Your task to perform on an android device: toggle javascript in the chrome app Image 0: 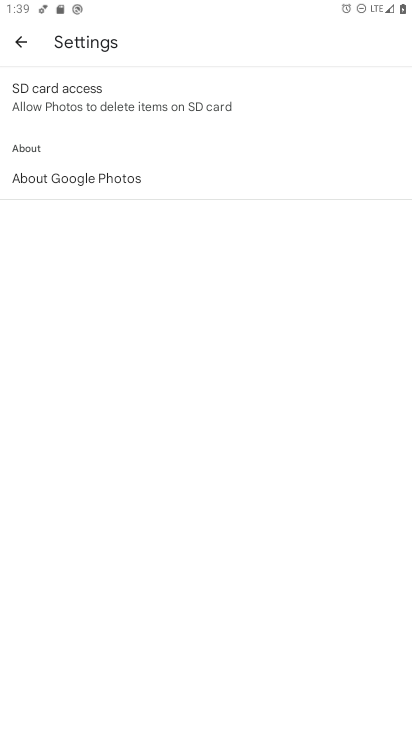
Step 0: press home button
Your task to perform on an android device: toggle javascript in the chrome app Image 1: 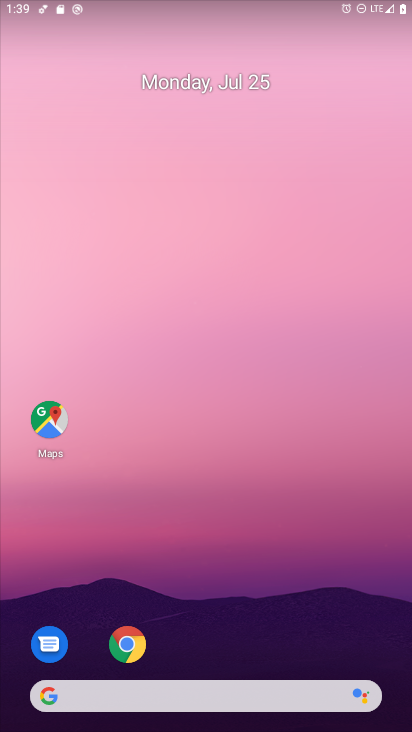
Step 1: click (124, 633)
Your task to perform on an android device: toggle javascript in the chrome app Image 2: 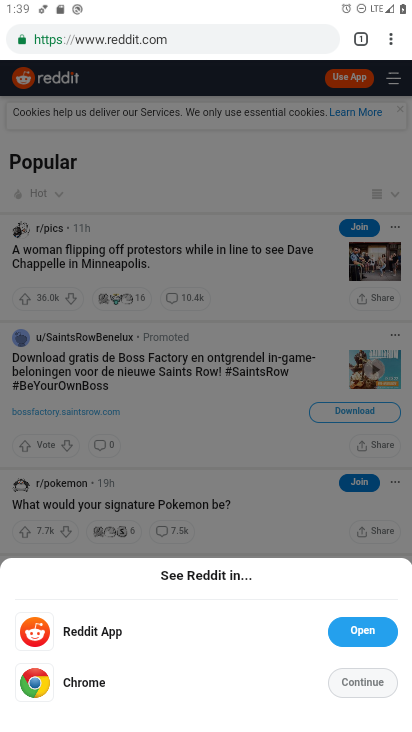
Step 2: click (386, 31)
Your task to perform on an android device: toggle javascript in the chrome app Image 3: 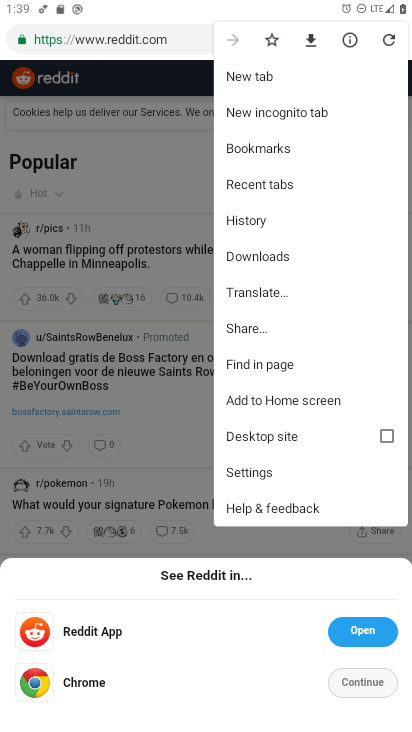
Step 3: click (273, 468)
Your task to perform on an android device: toggle javascript in the chrome app Image 4: 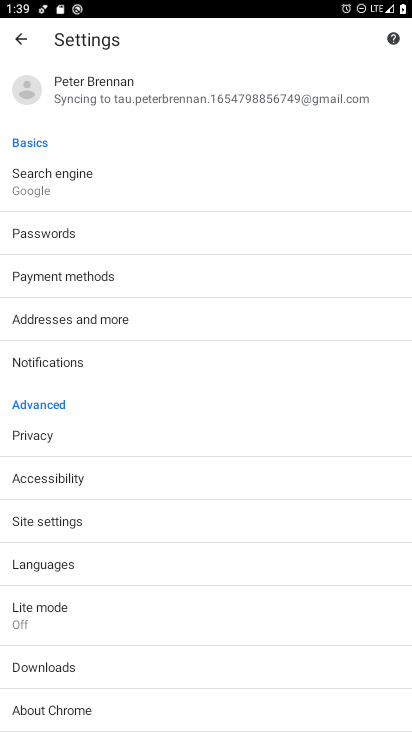
Step 4: click (50, 519)
Your task to perform on an android device: toggle javascript in the chrome app Image 5: 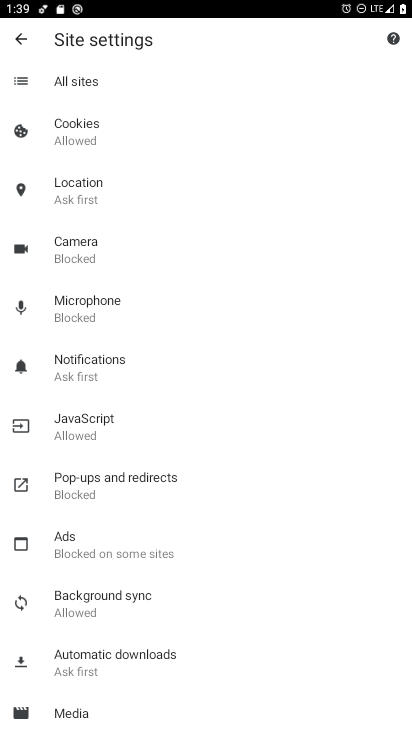
Step 5: click (73, 437)
Your task to perform on an android device: toggle javascript in the chrome app Image 6: 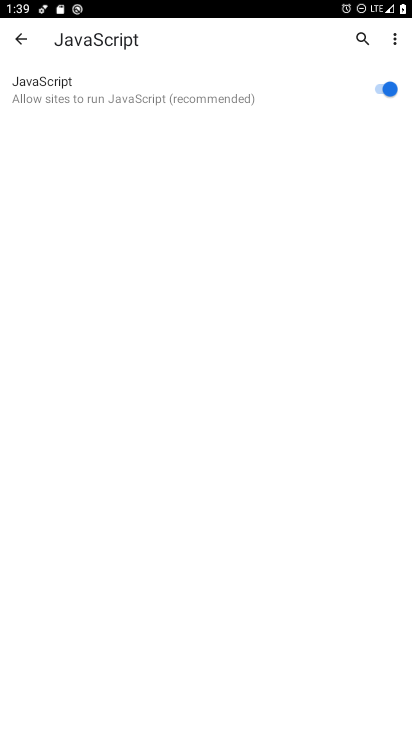
Step 6: click (384, 80)
Your task to perform on an android device: toggle javascript in the chrome app Image 7: 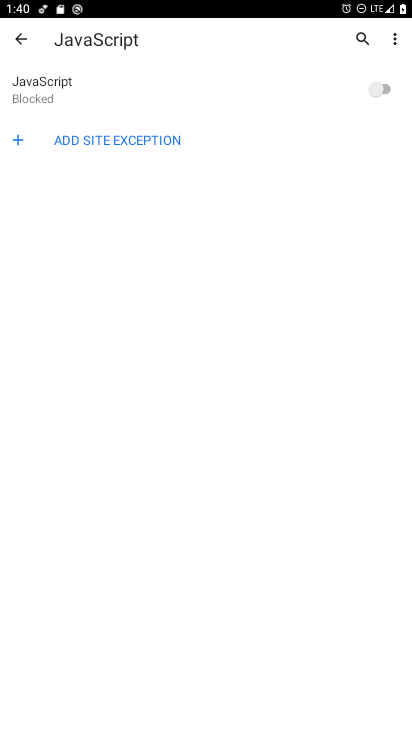
Step 7: task complete